Your task to perform on an android device: check the backup settings in the google photos Image 0: 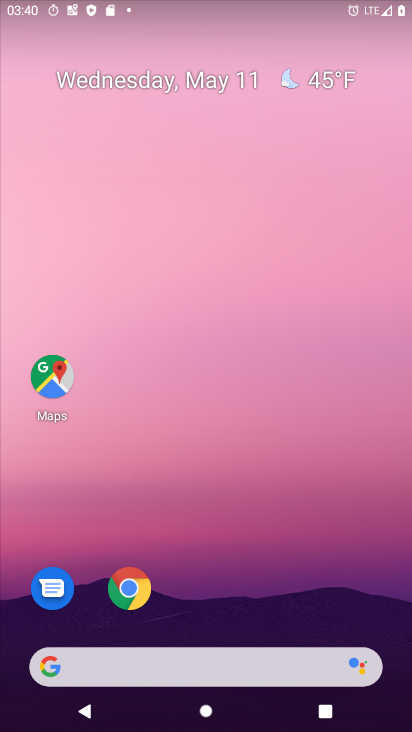
Step 0: drag from (191, 623) to (183, 297)
Your task to perform on an android device: check the backup settings in the google photos Image 1: 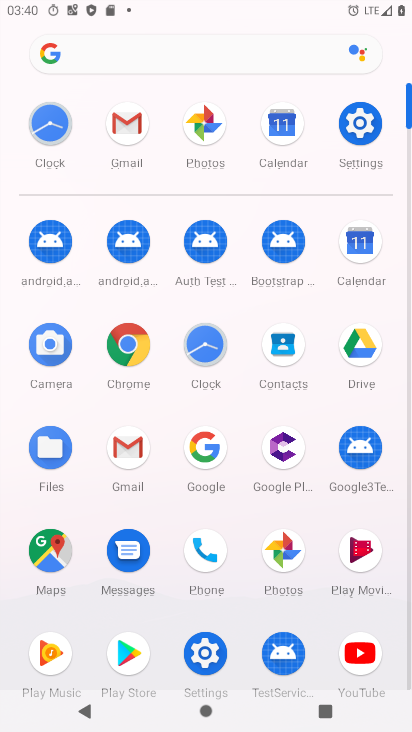
Step 1: click (186, 134)
Your task to perform on an android device: check the backup settings in the google photos Image 2: 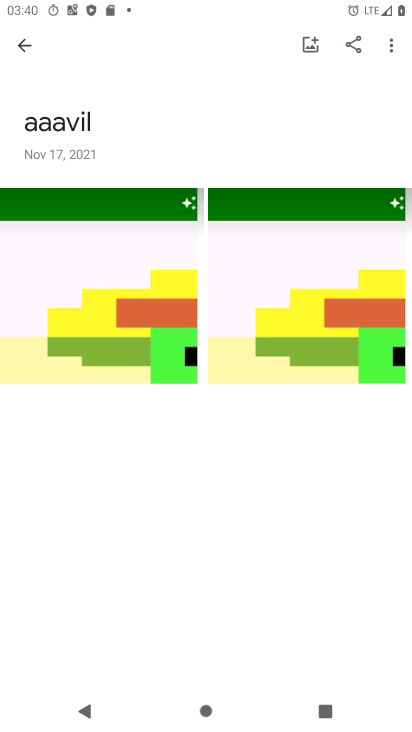
Step 2: press back button
Your task to perform on an android device: check the backup settings in the google photos Image 3: 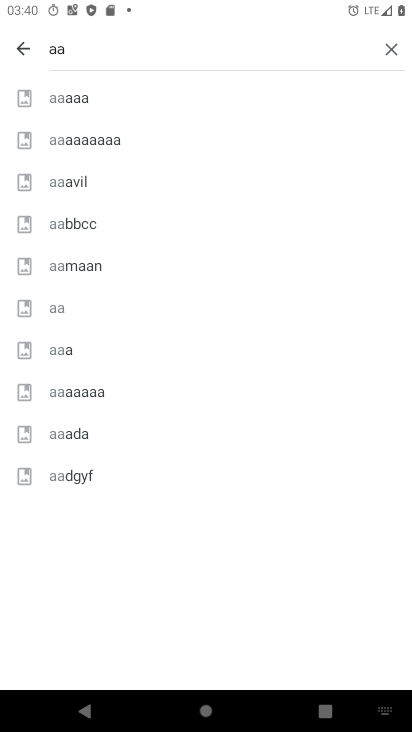
Step 3: click (28, 45)
Your task to perform on an android device: check the backup settings in the google photos Image 4: 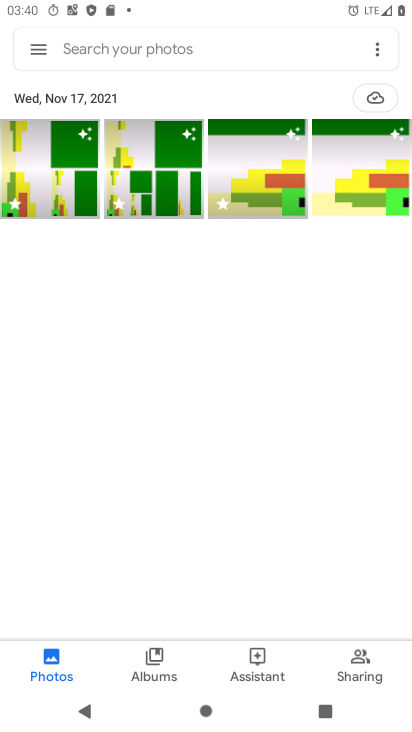
Step 4: click (43, 46)
Your task to perform on an android device: check the backup settings in the google photos Image 5: 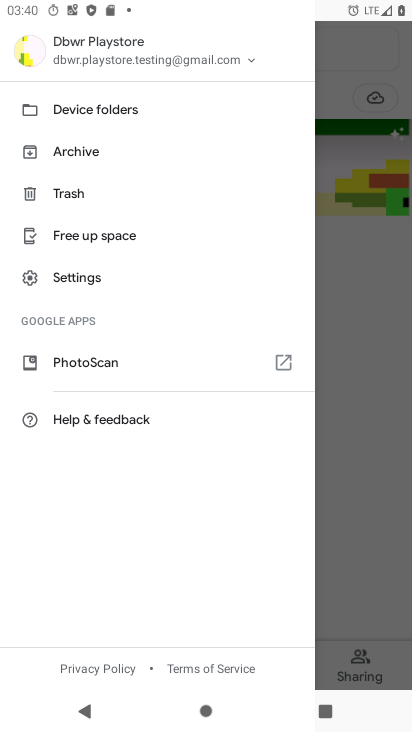
Step 5: click (77, 279)
Your task to perform on an android device: check the backup settings in the google photos Image 6: 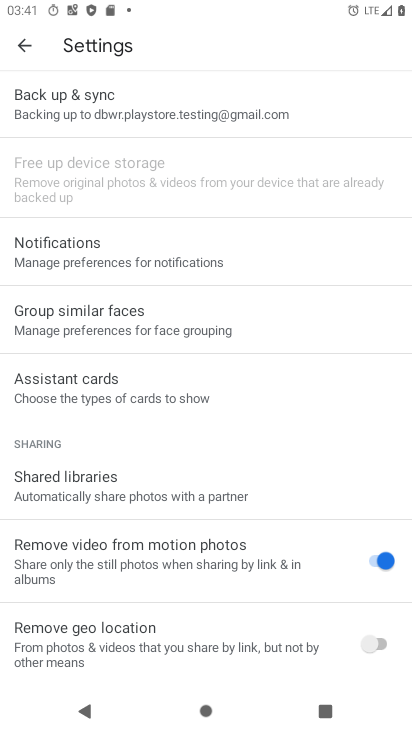
Step 6: click (101, 111)
Your task to perform on an android device: check the backup settings in the google photos Image 7: 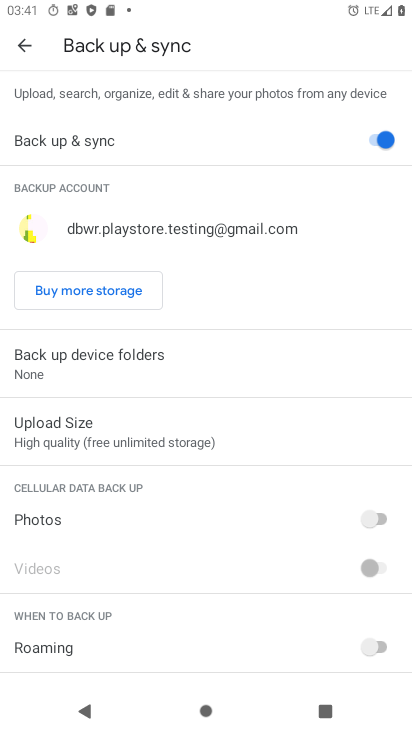
Step 7: task complete